Your task to perform on an android device: Go to privacy settings Image 0: 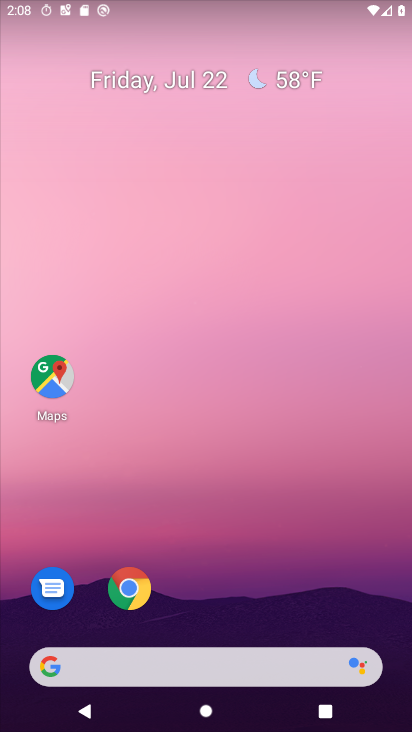
Step 0: drag from (293, 583) to (198, 191)
Your task to perform on an android device: Go to privacy settings Image 1: 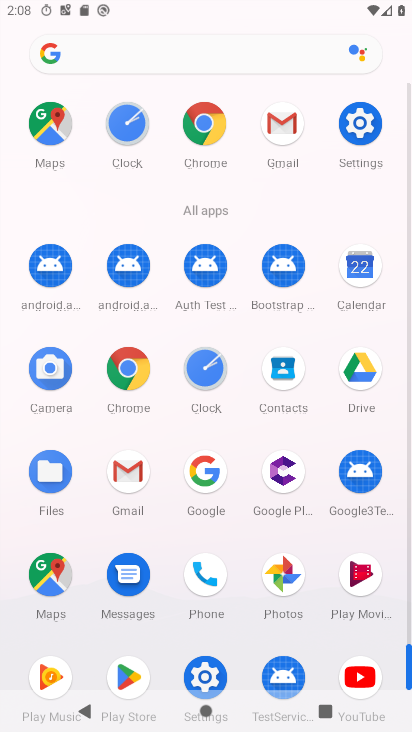
Step 1: click (203, 664)
Your task to perform on an android device: Go to privacy settings Image 2: 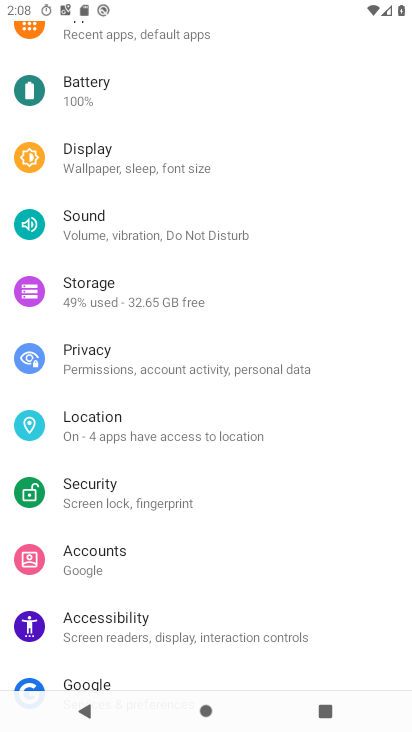
Step 2: click (106, 343)
Your task to perform on an android device: Go to privacy settings Image 3: 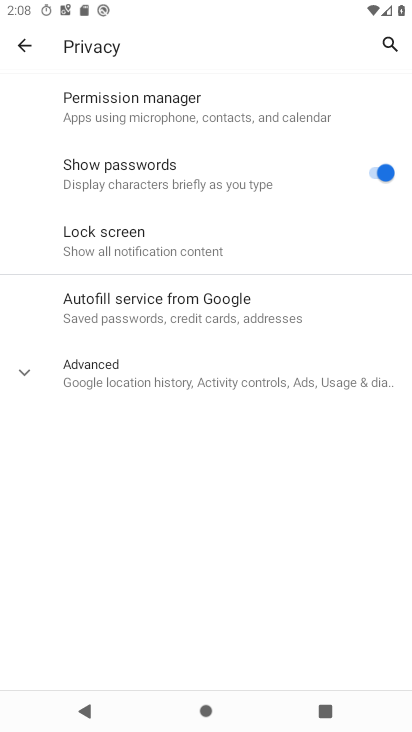
Step 3: task complete